Your task to perform on an android device: View the shopping cart on ebay.com. Image 0: 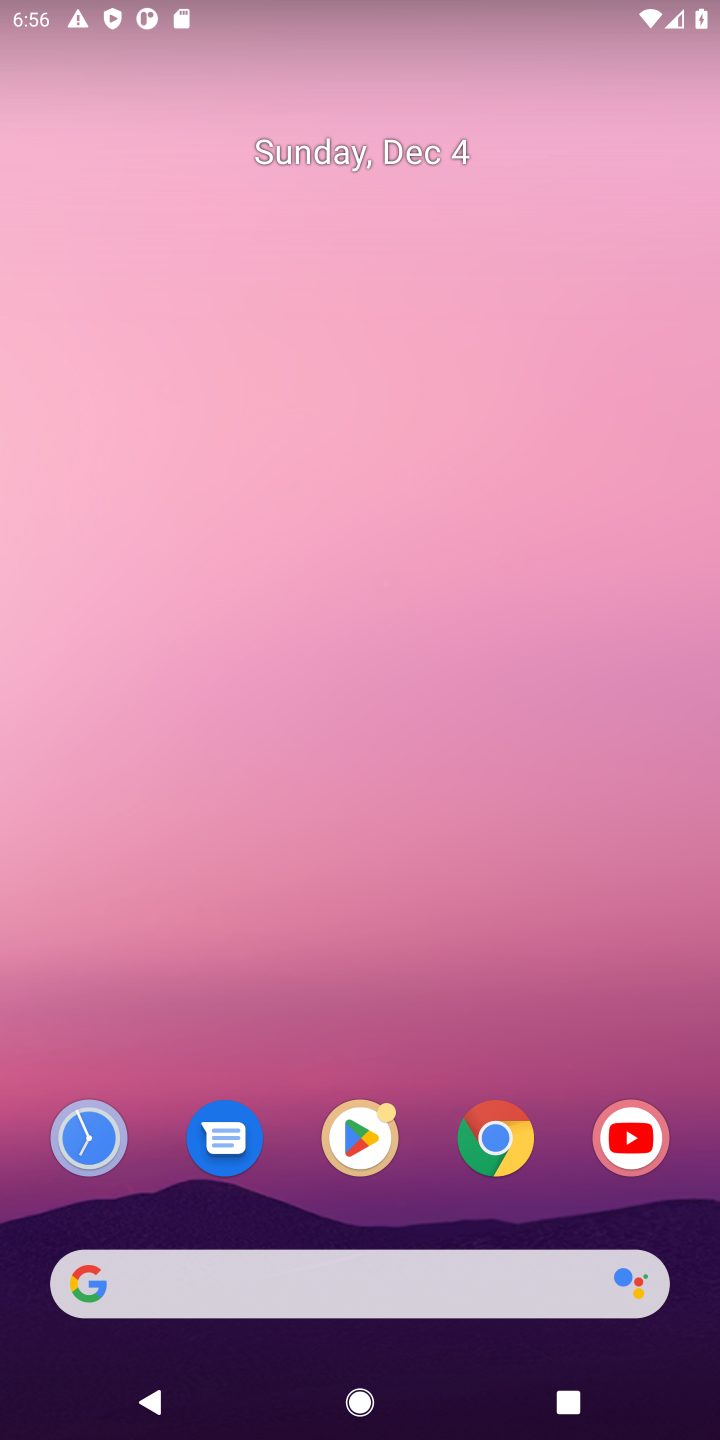
Step 0: click (489, 1149)
Your task to perform on an android device: View the shopping cart on ebay.com. Image 1: 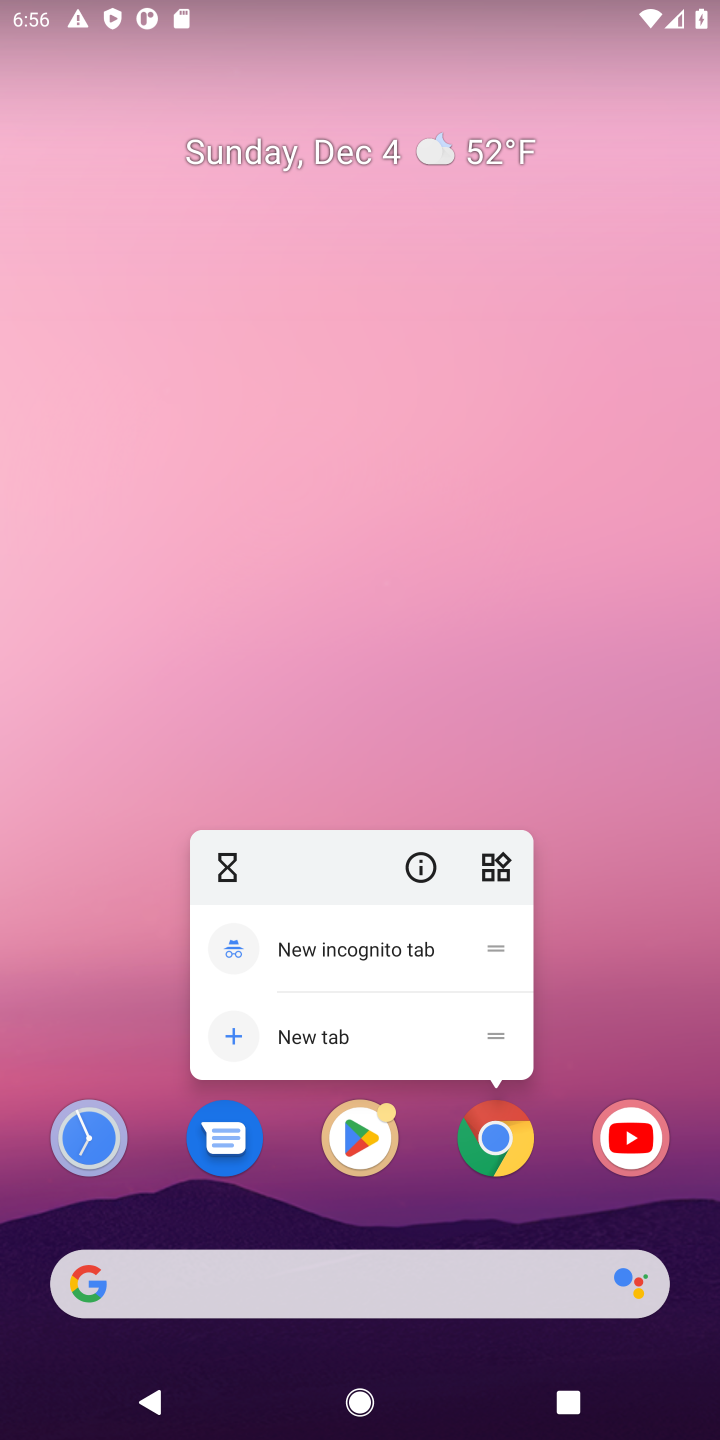
Step 1: click (489, 1149)
Your task to perform on an android device: View the shopping cart on ebay.com. Image 2: 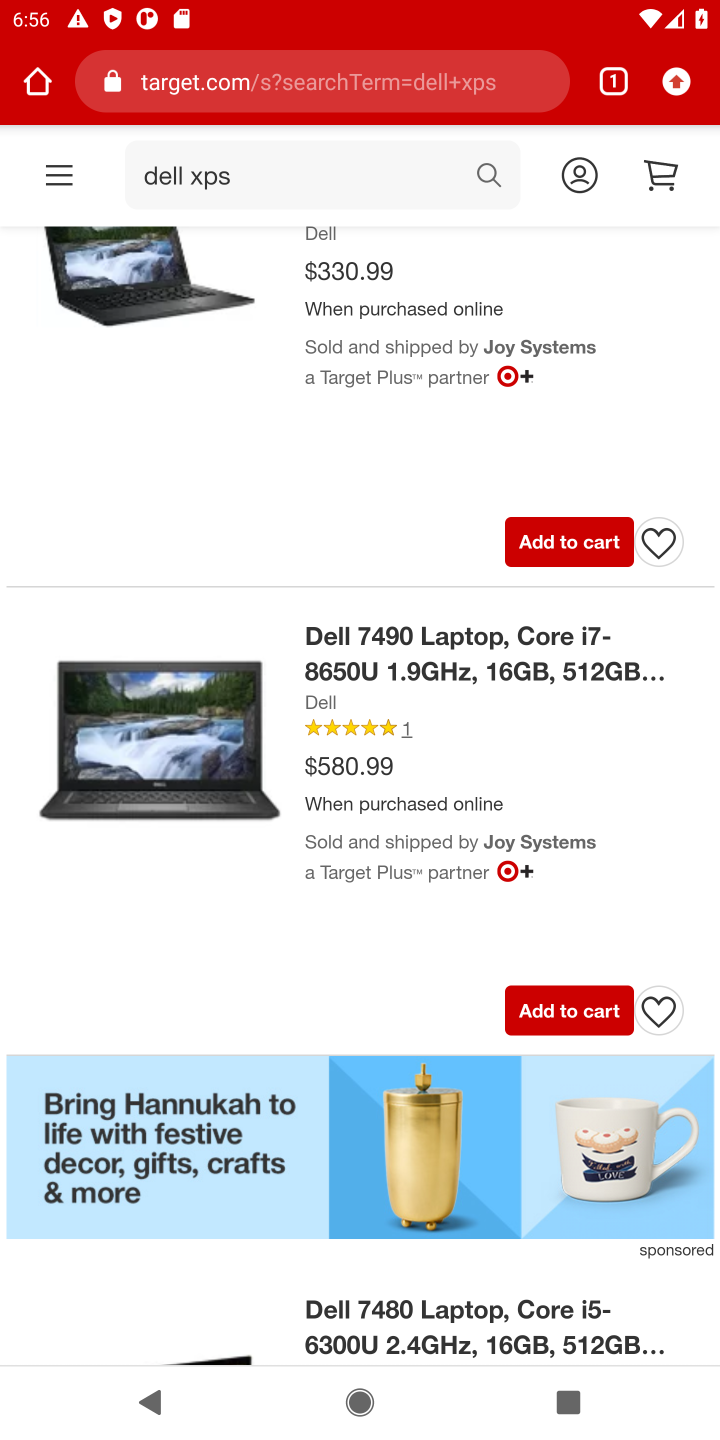
Step 2: click (373, 94)
Your task to perform on an android device: View the shopping cart on ebay.com. Image 3: 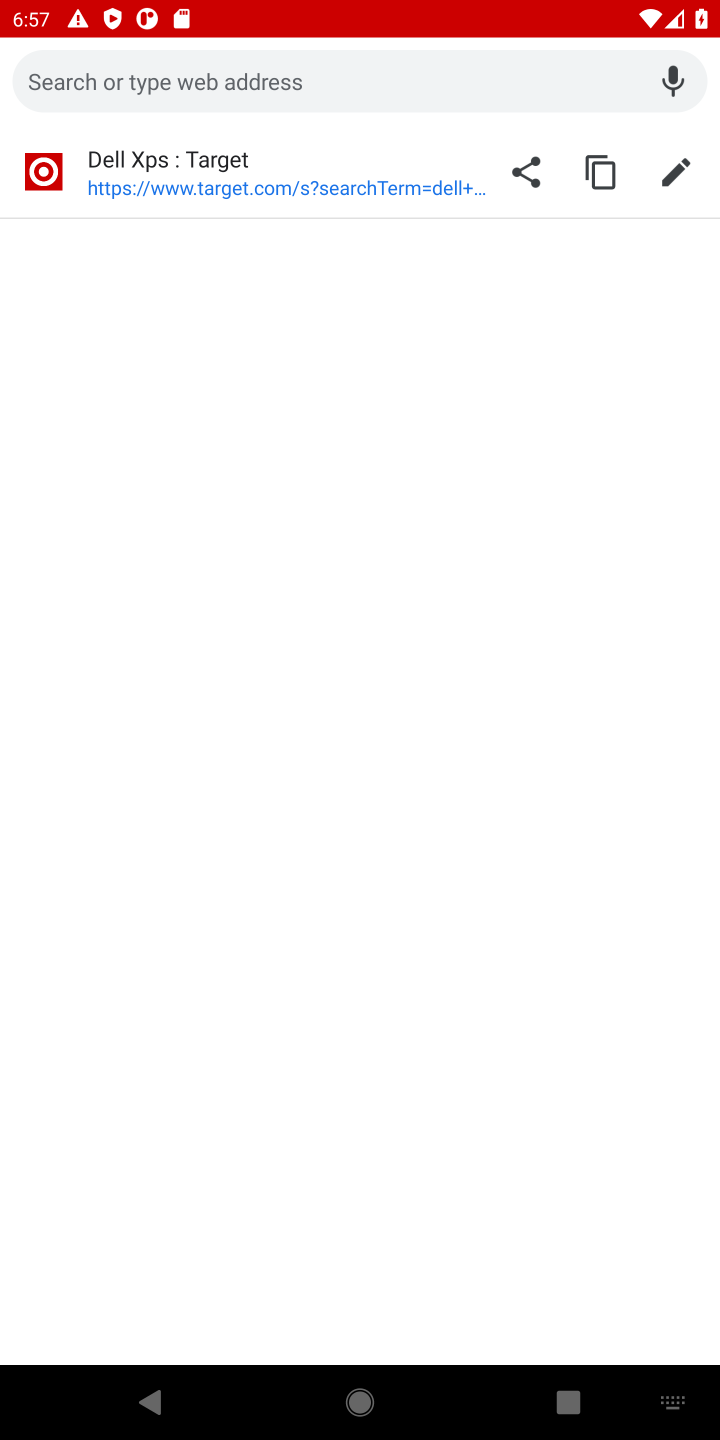
Step 3: type "ebay.com"
Your task to perform on an android device: View the shopping cart on ebay.com. Image 4: 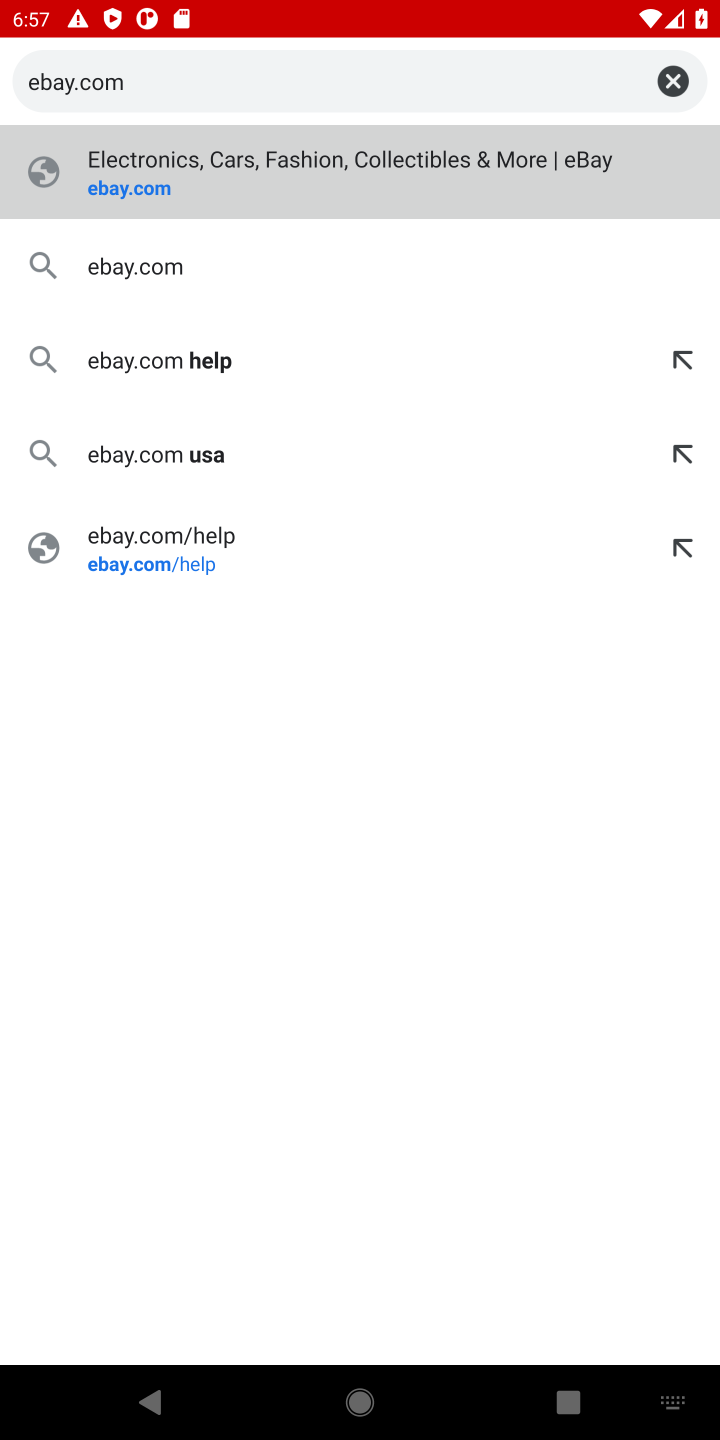
Step 4: press enter
Your task to perform on an android device: View the shopping cart on ebay.com. Image 5: 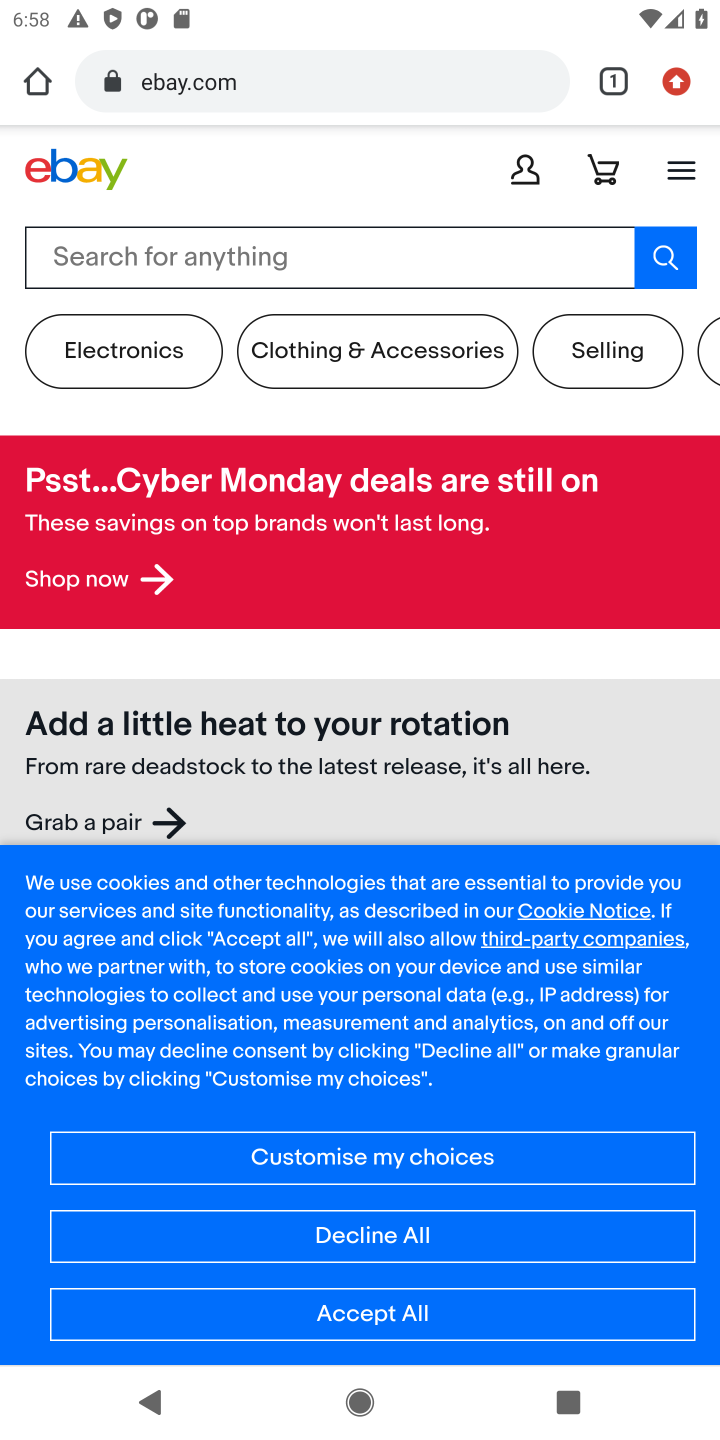
Step 5: click (617, 167)
Your task to perform on an android device: View the shopping cart on ebay.com. Image 6: 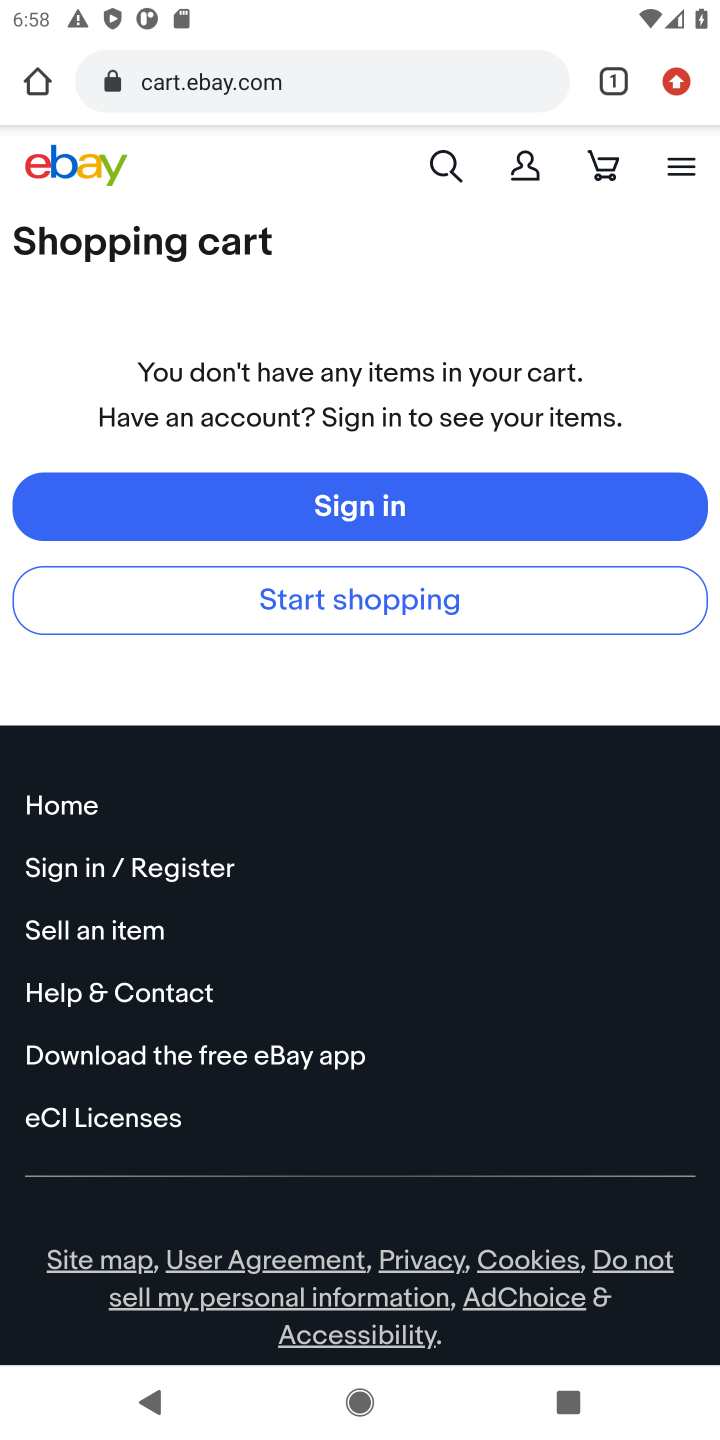
Step 6: task complete